Your task to perform on an android device: delete the emails in spam in the gmail app Image 0: 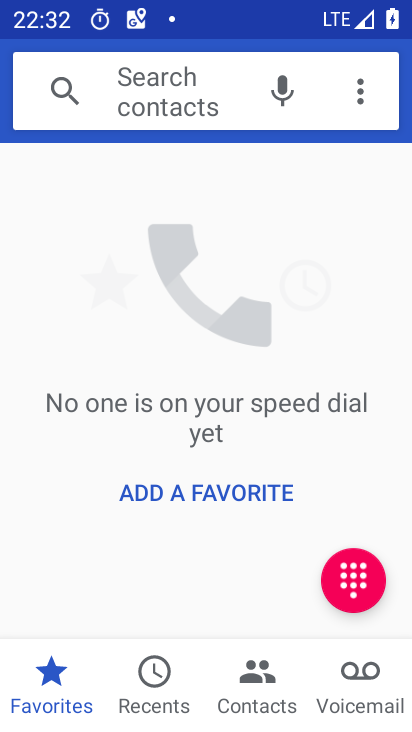
Step 0: press home button
Your task to perform on an android device: delete the emails in spam in the gmail app Image 1: 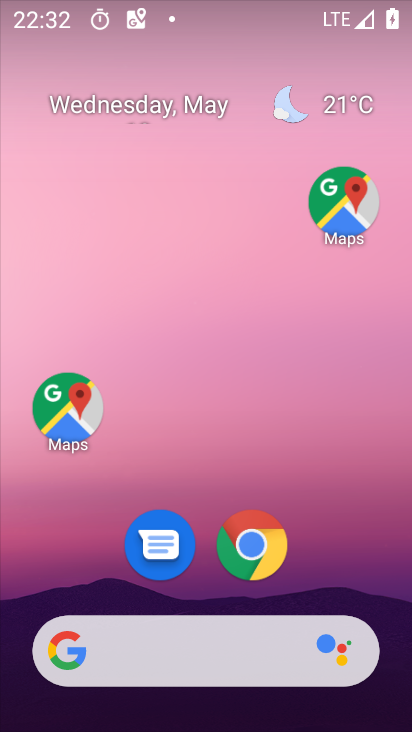
Step 1: drag from (326, 574) to (345, 33)
Your task to perform on an android device: delete the emails in spam in the gmail app Image 2: 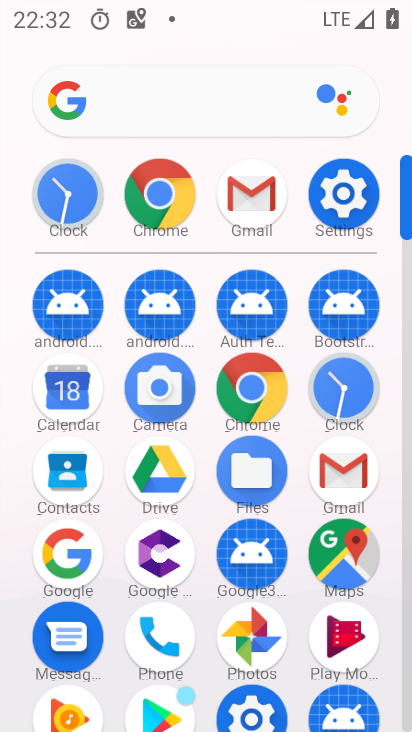
Step 2: click (348, 472)
Your task to perform on an android device: delete the emails in spam in the gmail app Image 3: 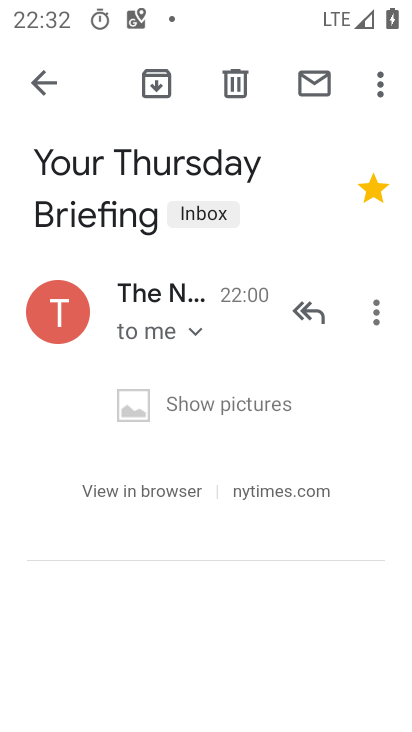
Step 3: click (56, 85)
Your task to perform on an android device: delete the emails in spam in the gmail app Image 4: 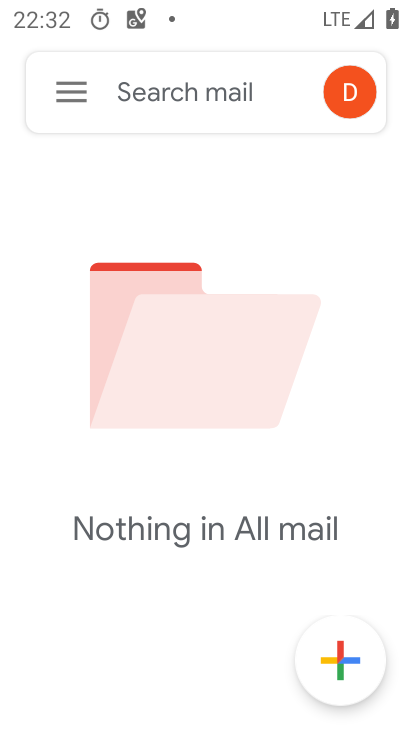
Step 4: click (71, 97)
Your task to perform on an android device: delete the emails in spam in the gmail app Image 5: 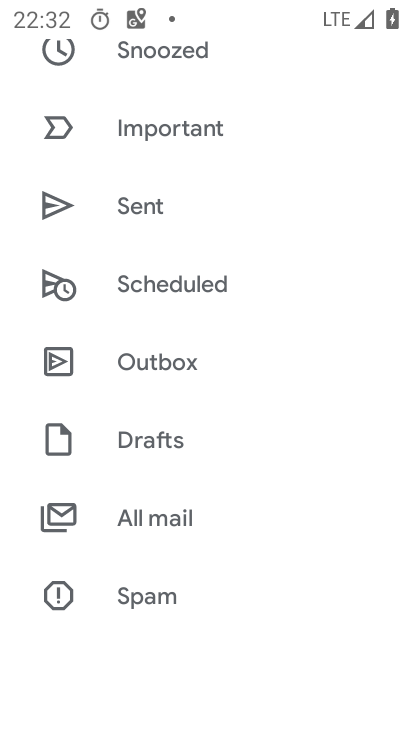
Step 5: click (127, 598)
Your task to perform on an android device: delete the emails in spam in the gmail app Image 6: 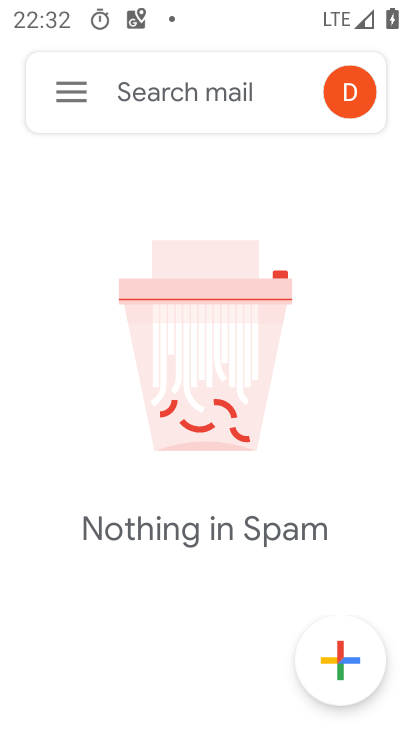
Step 6: task complete